Your task to perform on an android device: Open sound settings Image 0: 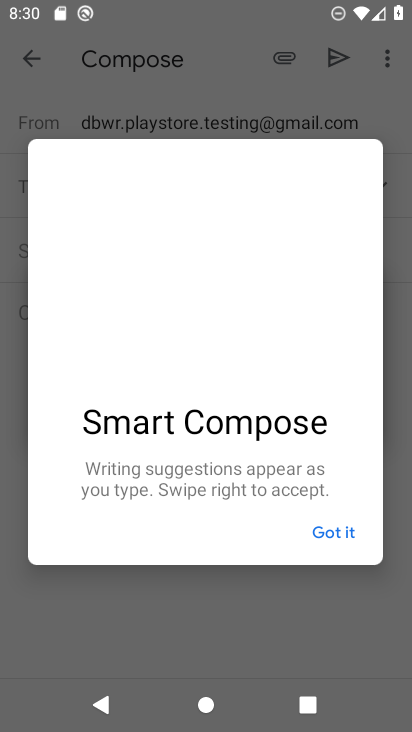
Step 0: press home button
Your task to perform on an android device: Open sound settings Image 1: 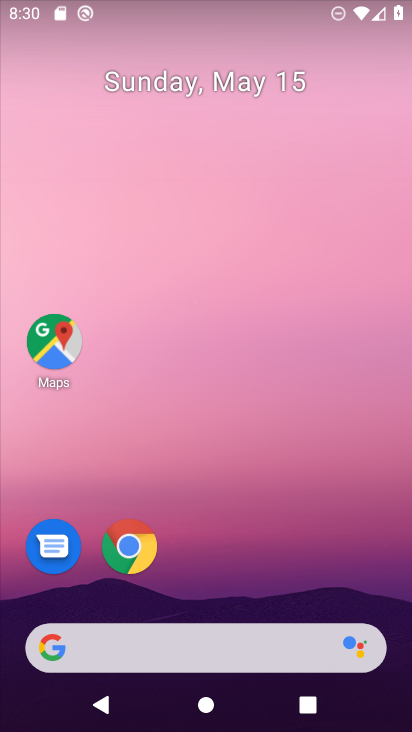
Step 1: drag from (253, 540) to (212, 72)
Your task to perform on an android device: Open sound settings Image 2: 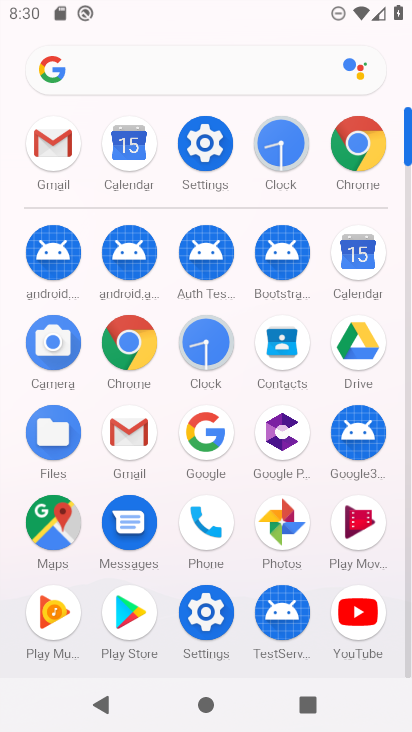
Step 2: click (213, 134)
Your task to perform on an android device: Open sound settings Image 3: 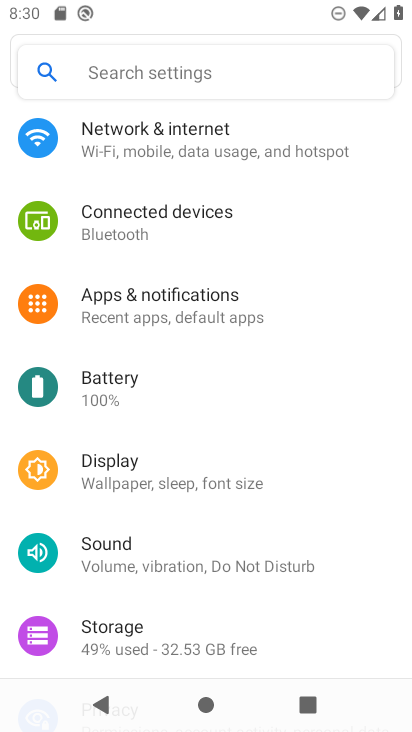
Step 3: click (188, 555)
Your task to perform on an android device: Open sound settings Image 4: 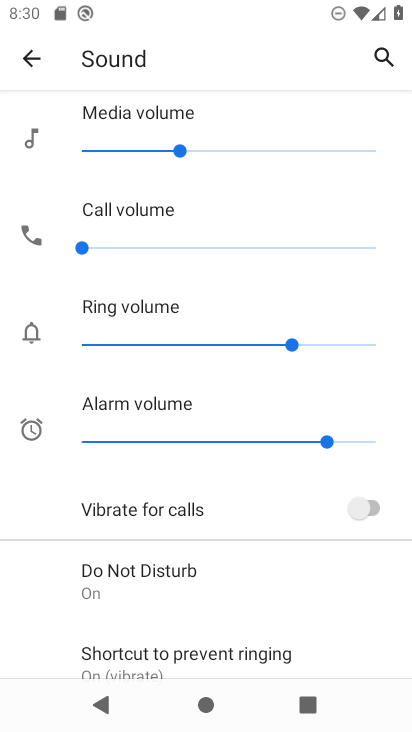
Step 4: task complete